Your task to perform on an android device: turn on the 12-hour format for clock Image 0: 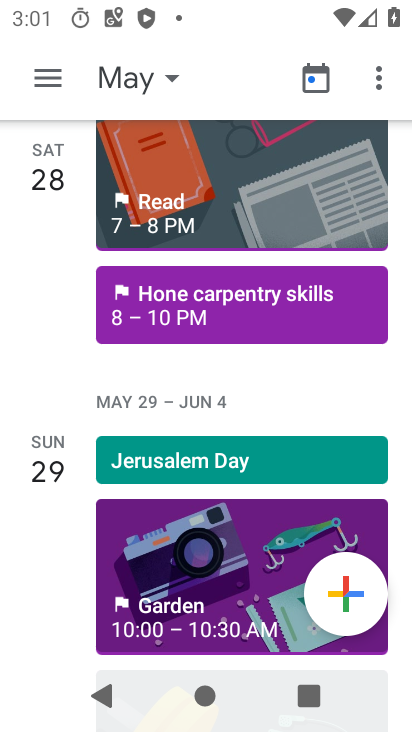
Step 0: press home button
Your task to perform on an android device: turn on the 12-hour format for clock Image 1: 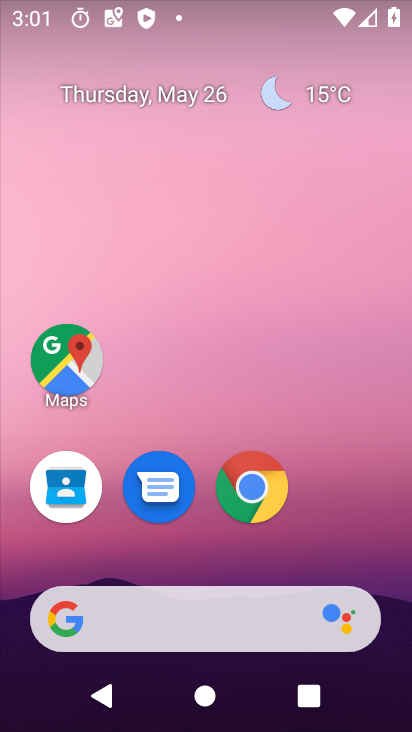
Step 1: drag from (195, 546) to (236, 195)
Your task to perform on an android device: turn on the 12-hour format for clock Image 2: 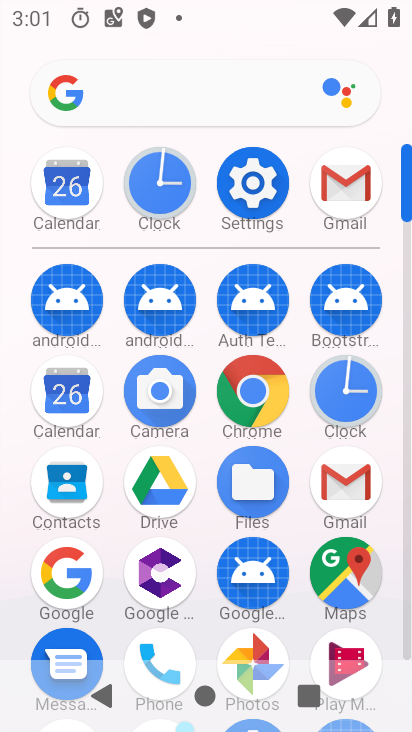
Step 2: click (357, 409)
Your task to perform on an android device: turn on the 12-hour format for clock Image 3: 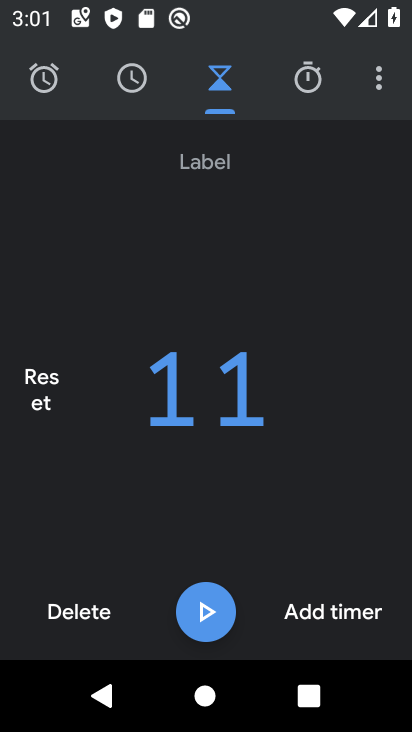
Step 3: click (388, 81)
Your task to perform on an android device: turn on the 12-hour format for clock Image 4: 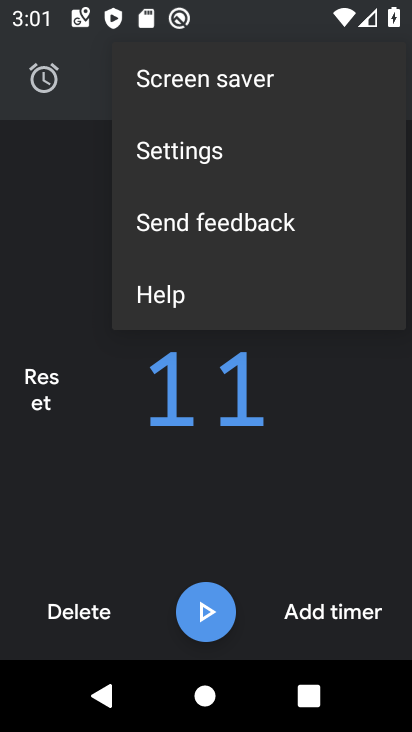
Step 4: click (239, 160)
Your task to perform on an android device: turn on the 12-hour format for clock Image 5: 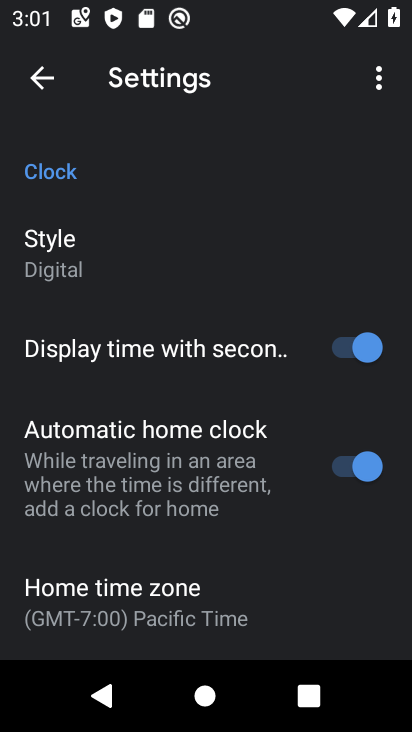
Step 5: drag from (256, 231) to (277, 436)
Your task to perform on an android device: turn on the 12-hour format for clock Image 6: 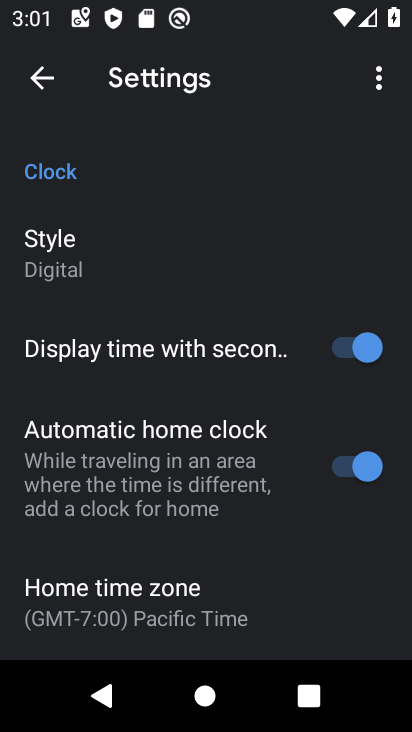
Step 6: drag from (210, 622) to (268, 329)
Your task to perform on an android device: turn on the 12-hour format for clock Image 7: 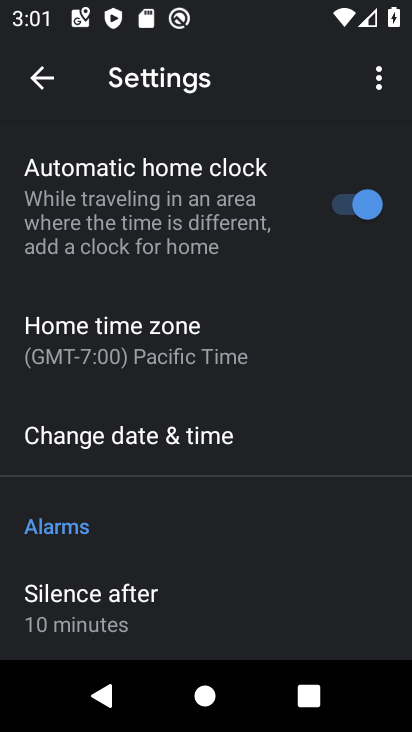
Step 7: click (205, 446)
Your task to perform on an android device: turn on the 12-hour format for clock Image 8: 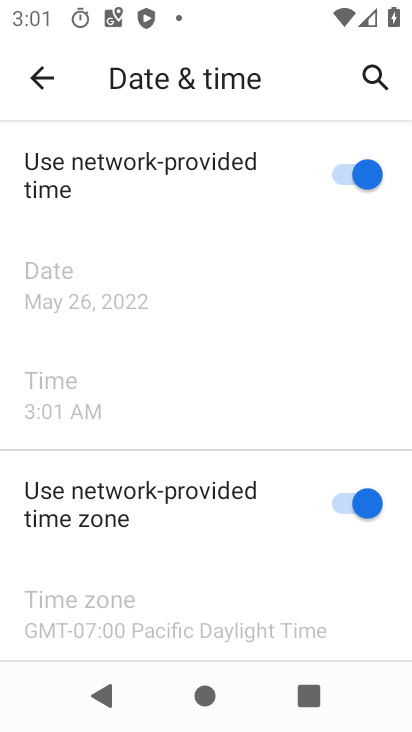
Step 8: task complete